Your task to perform on an android device: What's the weather going to be tomorrow? Image 0: 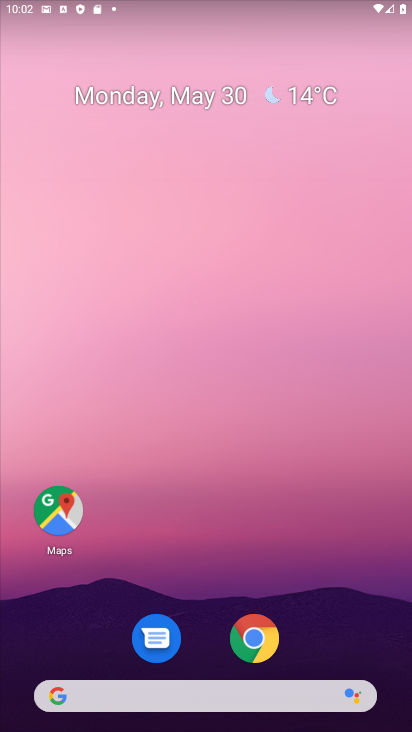
Step 0: click (252, 644)
Your task to perform on an android device: What's the weather going to be tomorrow? Image 1: 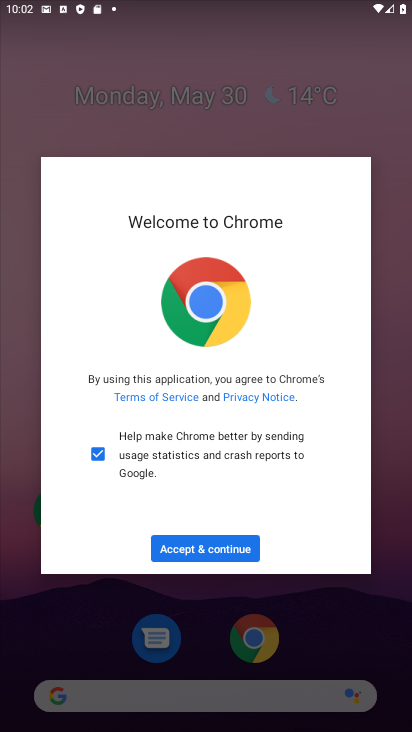
Step 1: click (189, 563)
Your task to perform on an android device: What's the weather going to be tomorrow? Image 2: 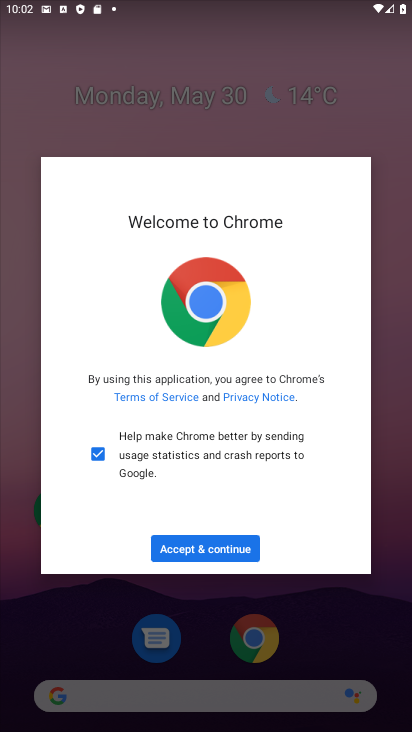
Step 2: click (206, 552)
Your task to perform on an android device: What's the weather going to be tomorrow? Image 3: 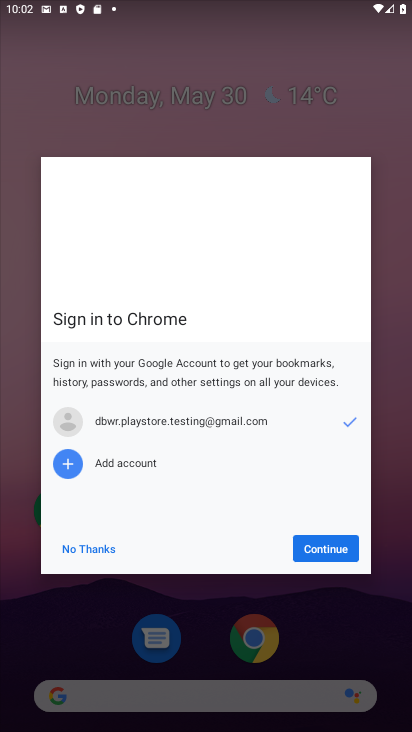
Step 3: click (311, 553)
Your task to perform on an android device: What's the weather going to be tomorrow? Image 4: 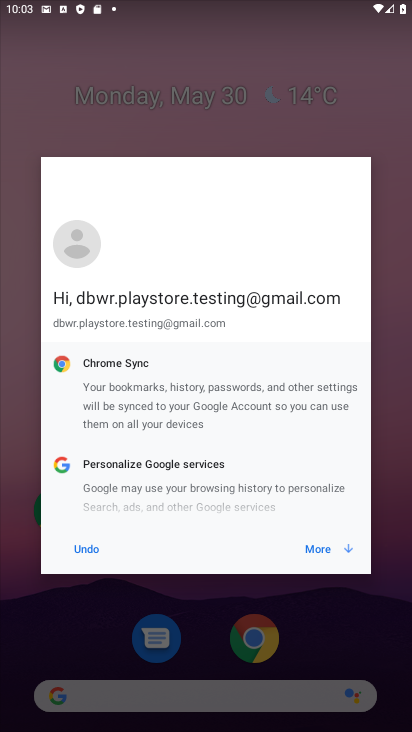
Step 4: click (319, 553)
Your task to perform on an android device: What's the weather going to be tomorrow? Image 5: 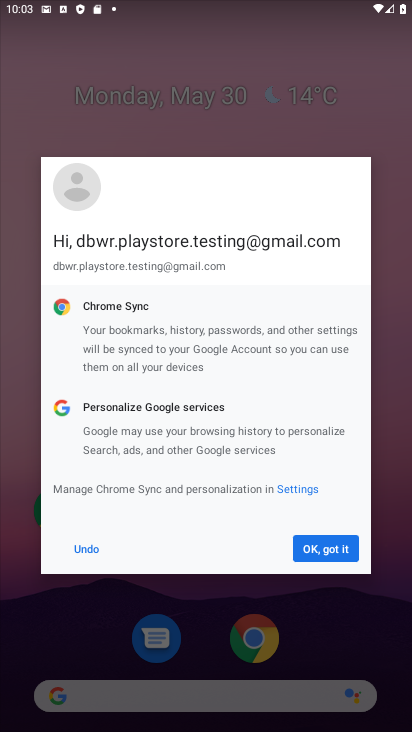
Step 5: click (319, 553)
Your task to perform on an android device: What's the weather going to be tomorrow? Image 6: 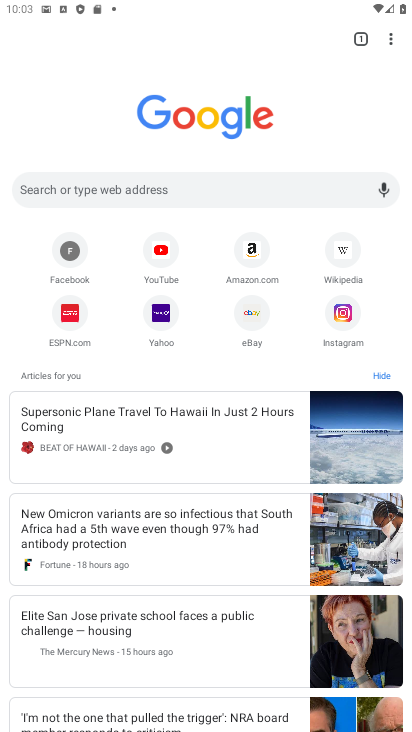
Step 6: click (69, 186)
Your task to perform on an android device: What's the weather going to be tomorrow? Image 7: 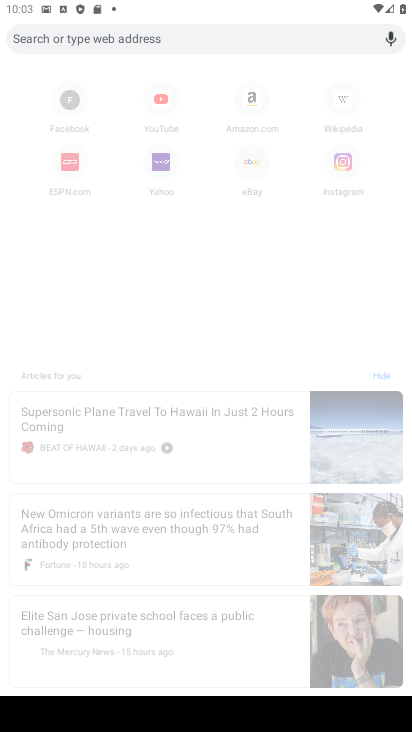
Step 7: type "What's the weather going to be tomorrow?"
Your task to perform on an android device: What's the weather going to be tomorrow? Image 8: 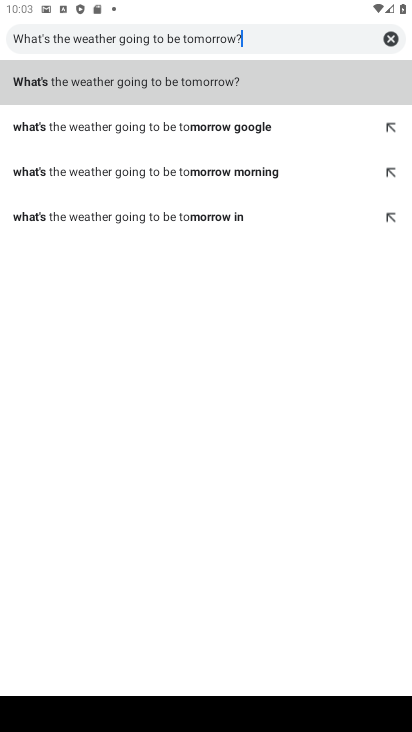
Step 8: click (122, 93)
Your task to perform on an android device: What's the weather going to be tomorrow? Image 9: 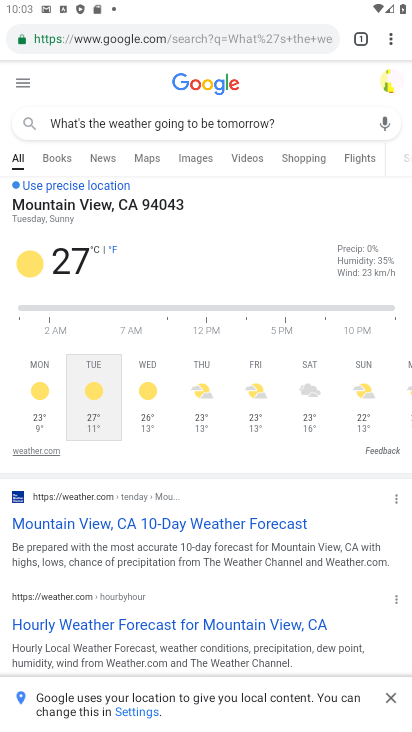
Step 9: task complete